Your task to perform on an android device: turn vacation reply on in the gmail app Image 0: 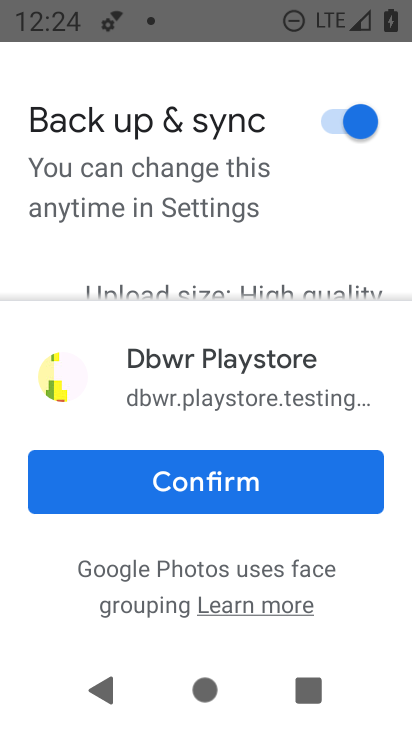
Step 0: press home button
Your task to perform on an android device: turn vacation reply on in the gmail app Image 1: 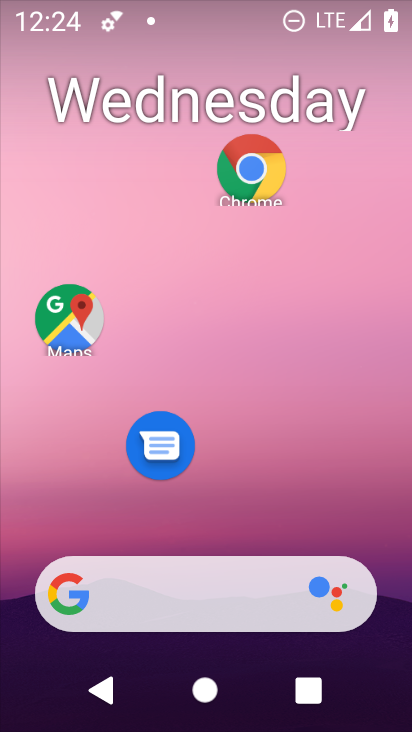
Step 1: drag from (287, 477) to (318, 128)
Your task to perform on an android device: turn vacation reply on in the gmail app Image 2: 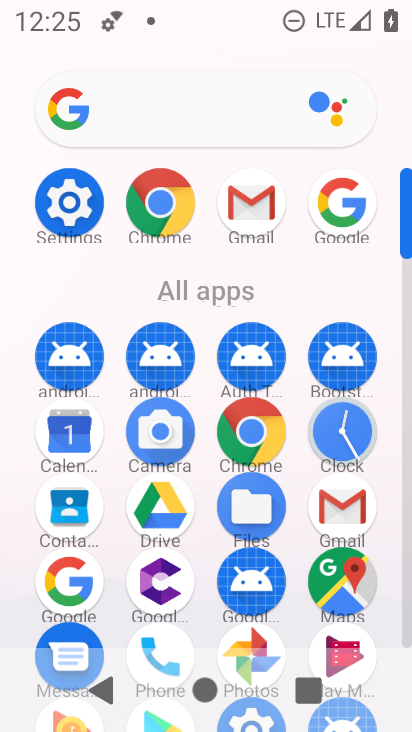
Step 2: click (337, 501)
Your task to perform on an android device: turn vacation reply on in the gmail app Image 3: 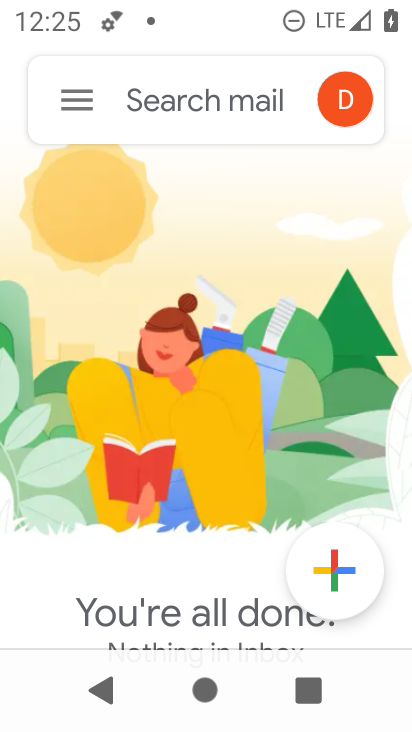
Step 3: click (67, 95)
Your task to perform on an android device: turn vacation reply on in the gmail app Image 4: 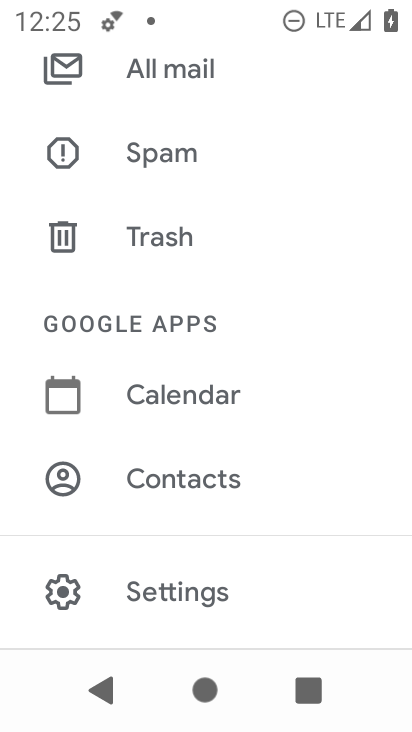
Step 4: click (176, 583)
Your task to perform on an android device: turn vacation reply on in the gmail app Image 5: 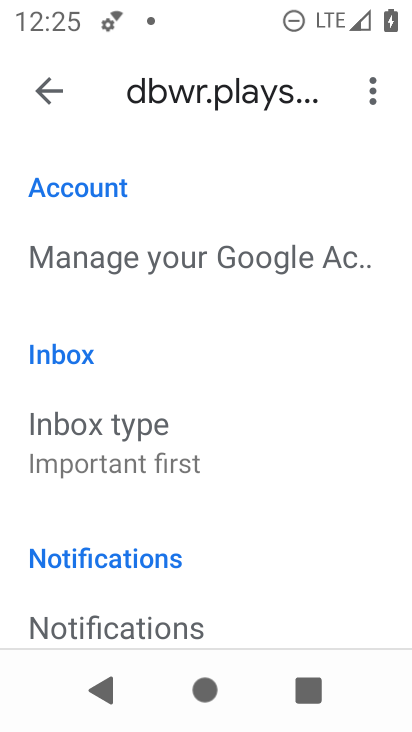
Step 5: drag from (170, 516) to (215, 70)
Your task to perform on an android device: turn vacation reply on in the gmail app Image 6: 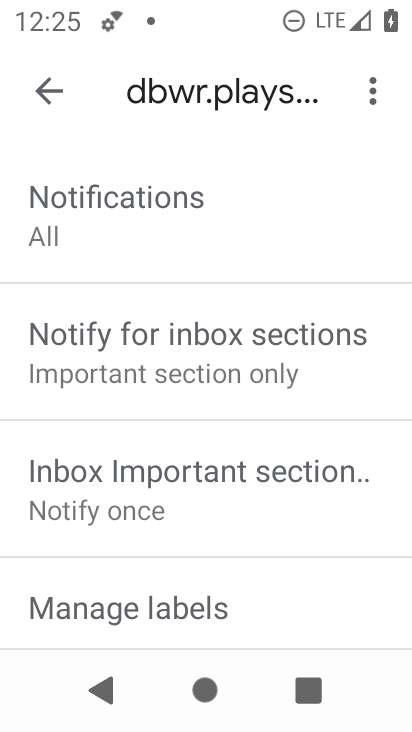
Step 6: drag from (159, 509) to (185, 143)
Your task to perform on an android device: turn vacation reply on in the gmail app Image 7: 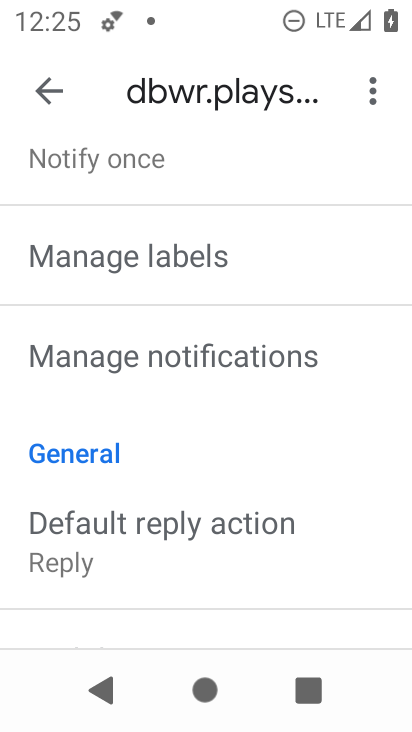
Step 7: drag from (214, 556) to (201, 291)
Your task to perform on an android device: turn vacation reply on in the gmail app Image 8: 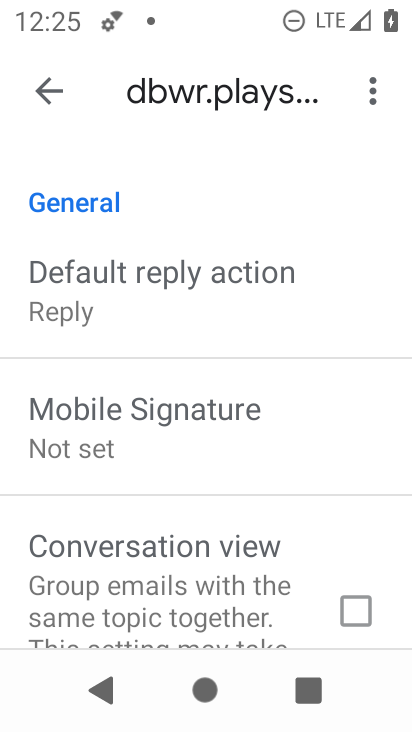
Step 8: drag from (138, 543) to (155, 143)
Your task to perform on an android device: turn vacation reply on in the gmail app Image 9: 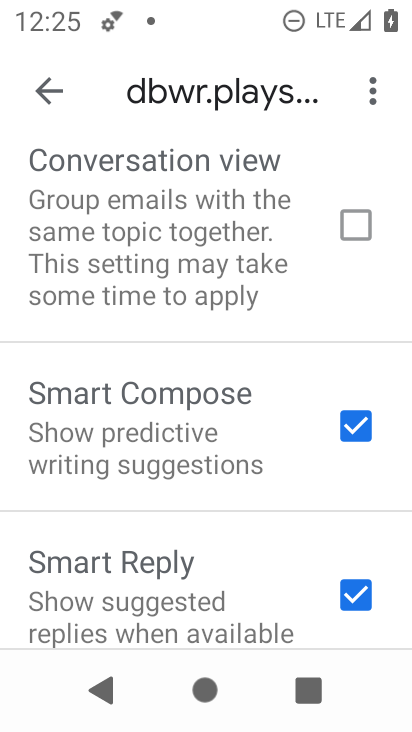
Step 9: drag from (185, 533) to (238, 144)
Your task to perform on an android device: turn vacation reply on in the gmail app Image 10: 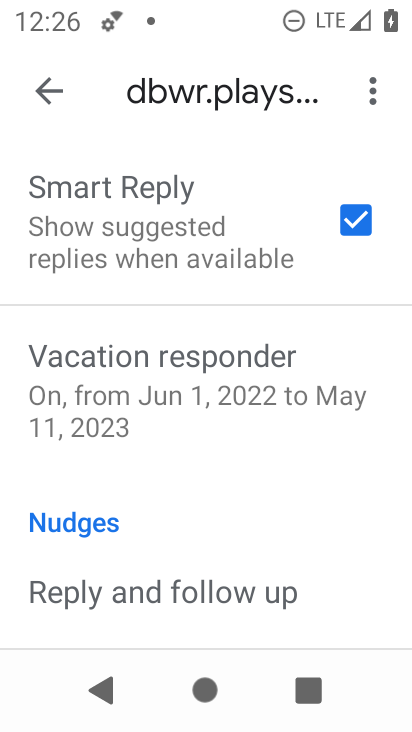
Step 10: click (165, 391)
Your task to perform on an android device: turn vacation reply on in the gmail app Image 11: 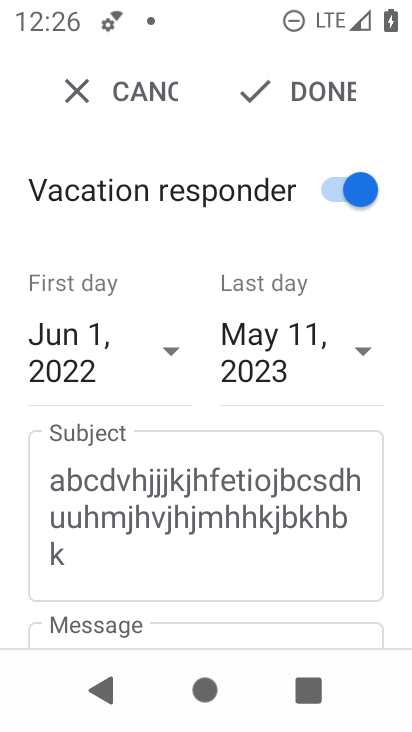
Step 11: task complete